Your task to perform on an android device: turn off picture-in-picture Image 0: 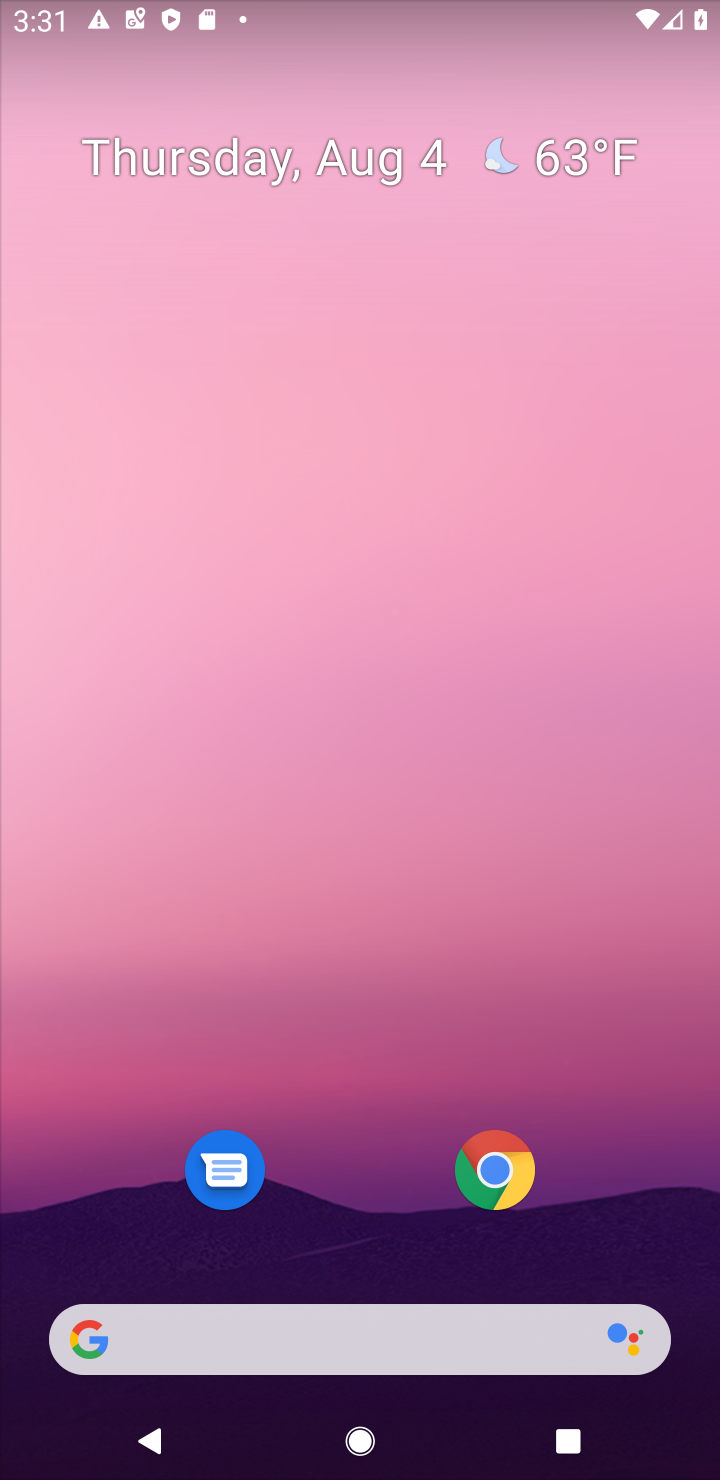
Step 0: drag from (641, 1228) to (561, 419)
Your task to perform on an android device: turn off picture-in-picture Image 1: 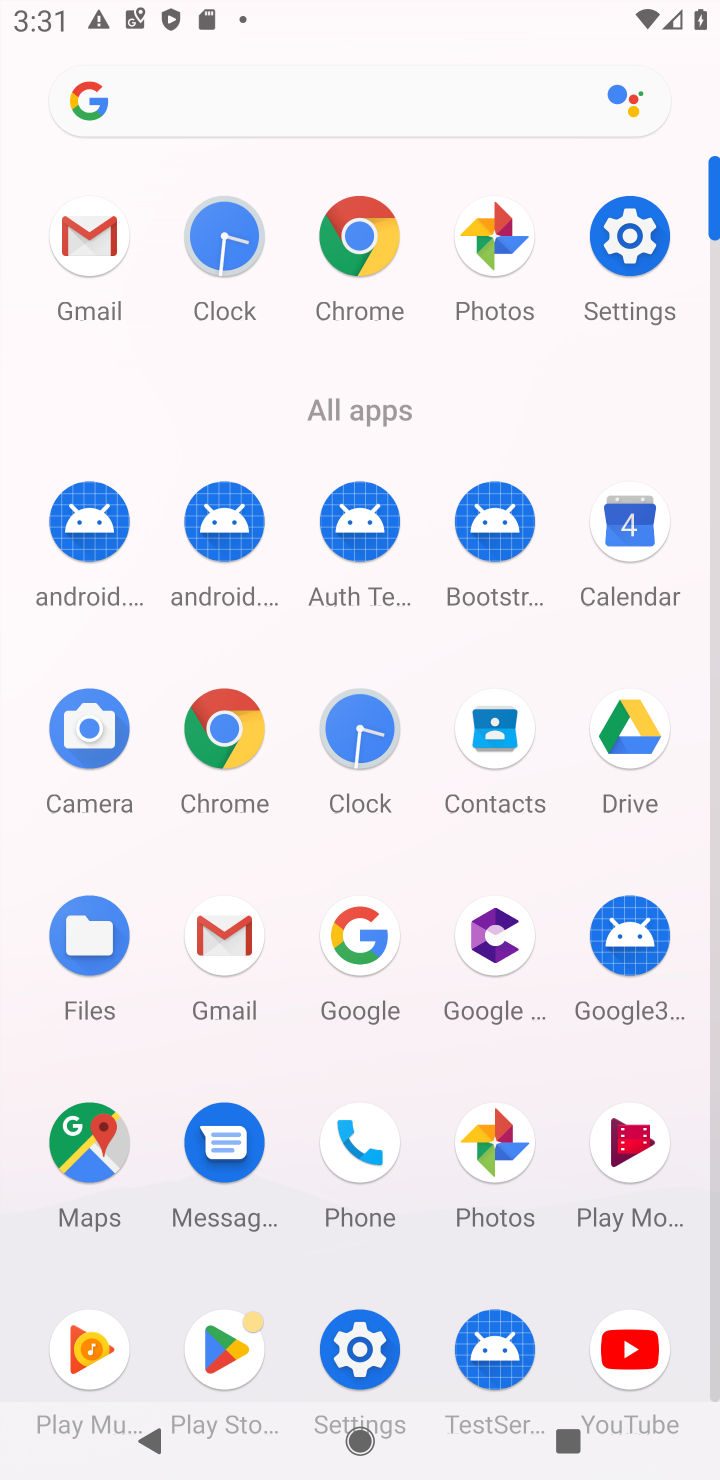
Step 1: click (348, 1358)
Your task to perform on an android device: turn off picture-in-picture Image 2: 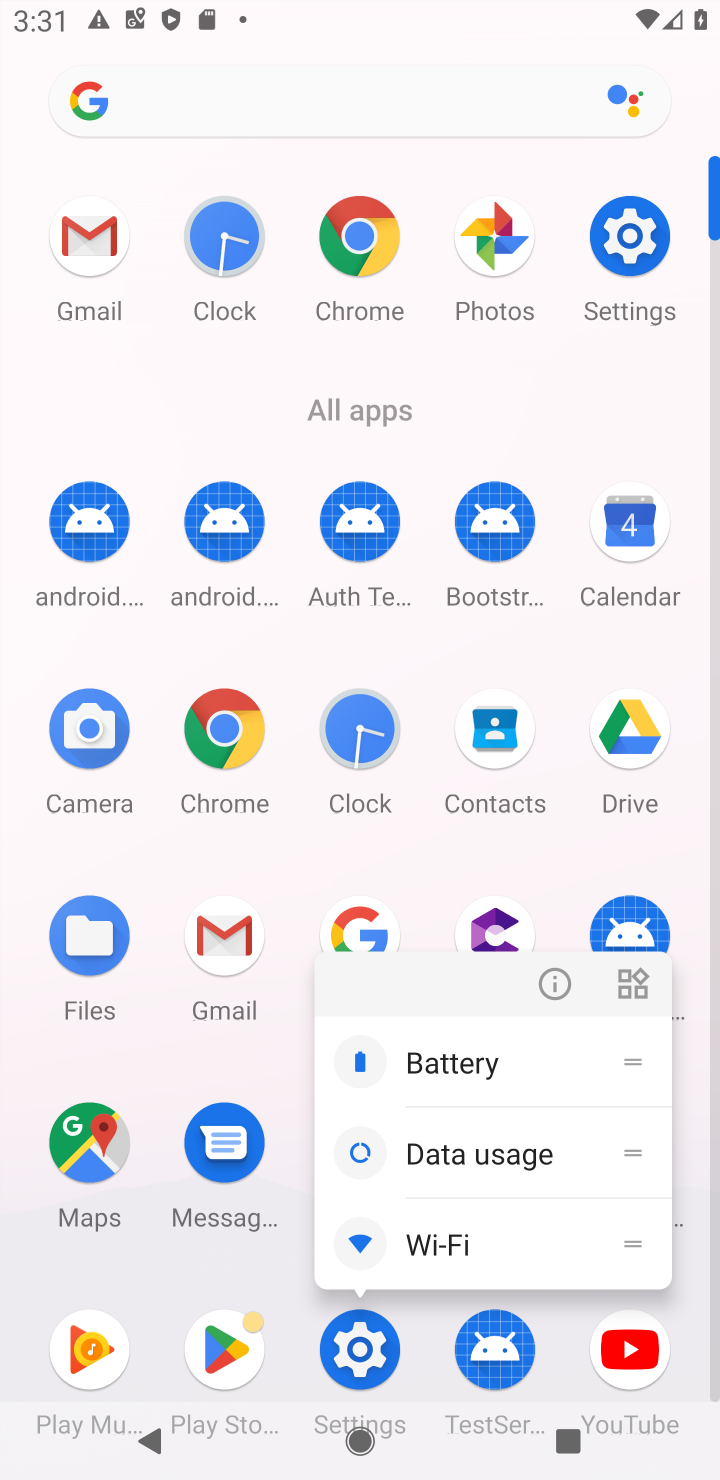
Step 2: click (351, 1350)
Your task to perform on an android device: turn off picture-in-picture Image 3: 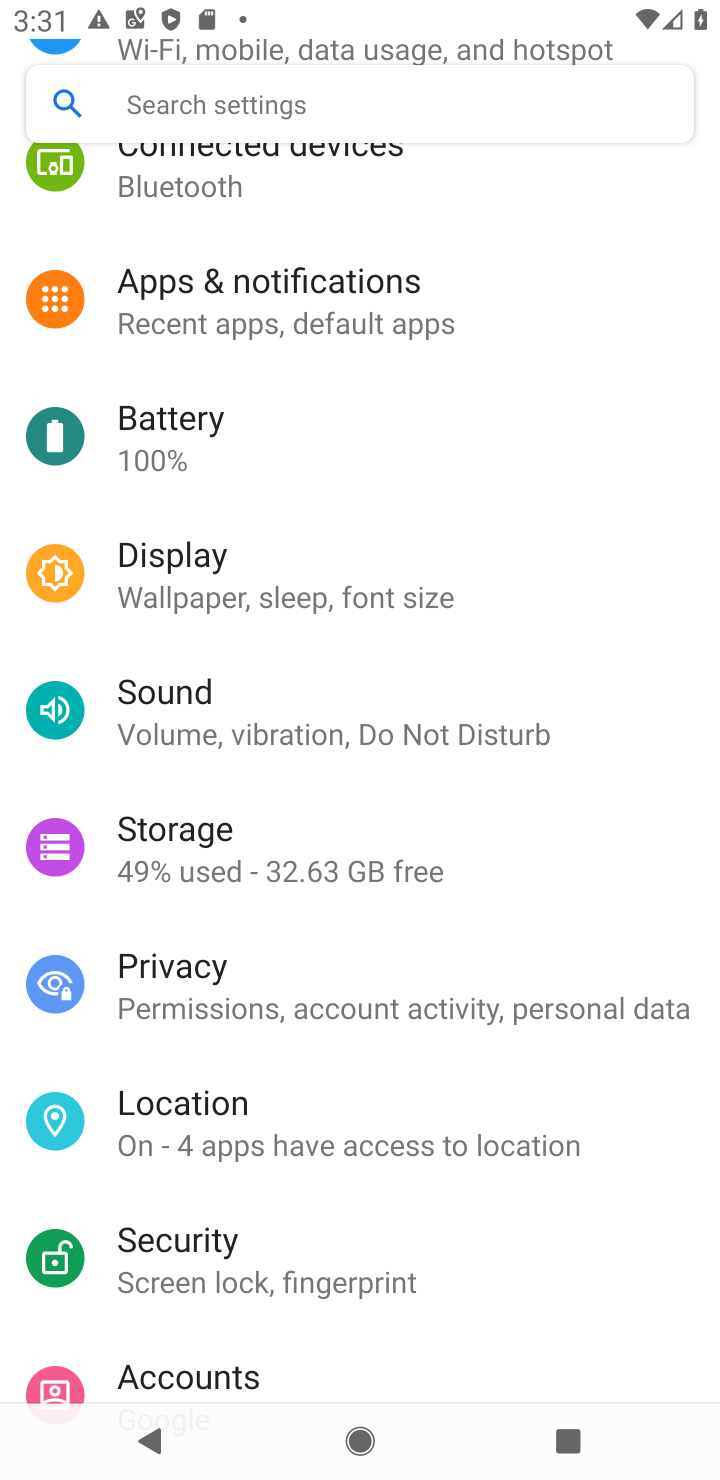
Step 3: drag from (431, 401) to (533, 841)
Your task to perform on an android device: turn off picture-in-picture Image 4: 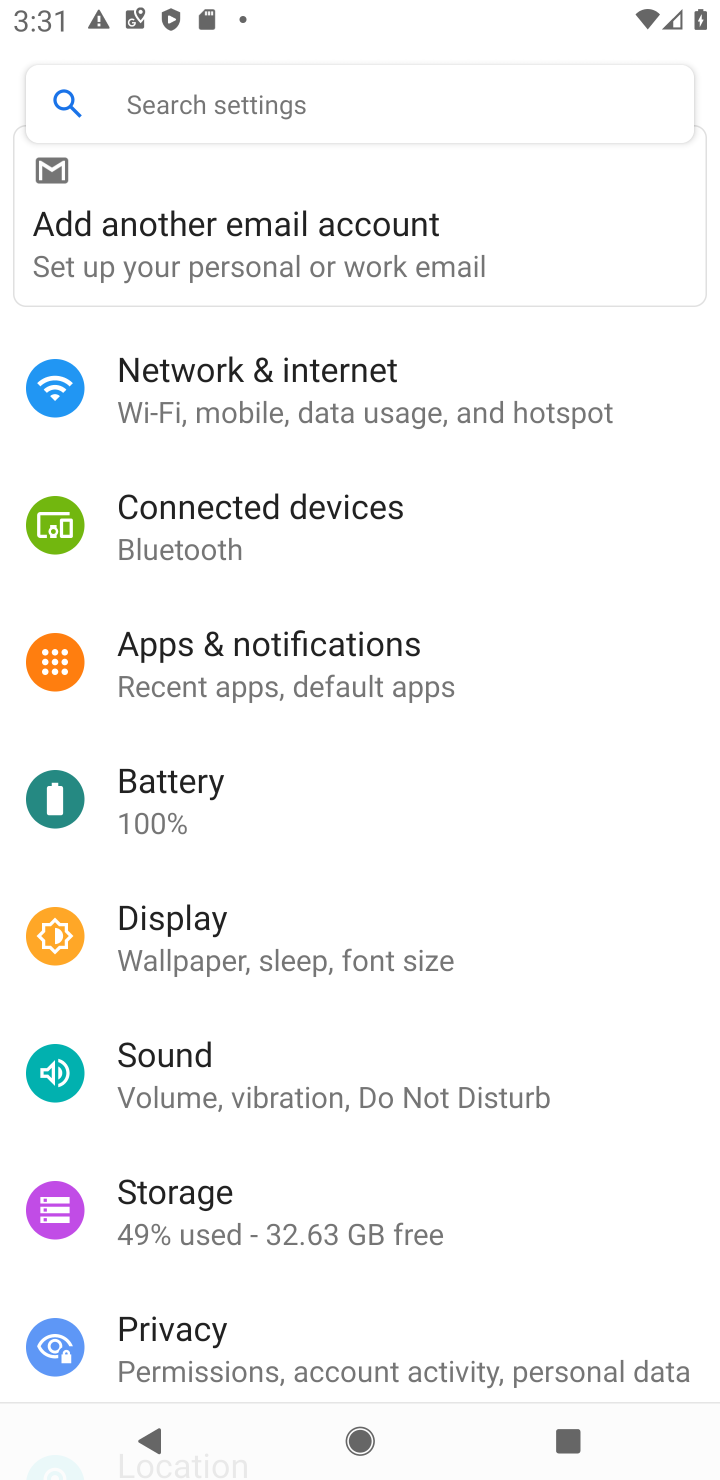
Step 4: click (275, 669)
Your task to perform on an android device: turn off picture-in-picture Image 5: 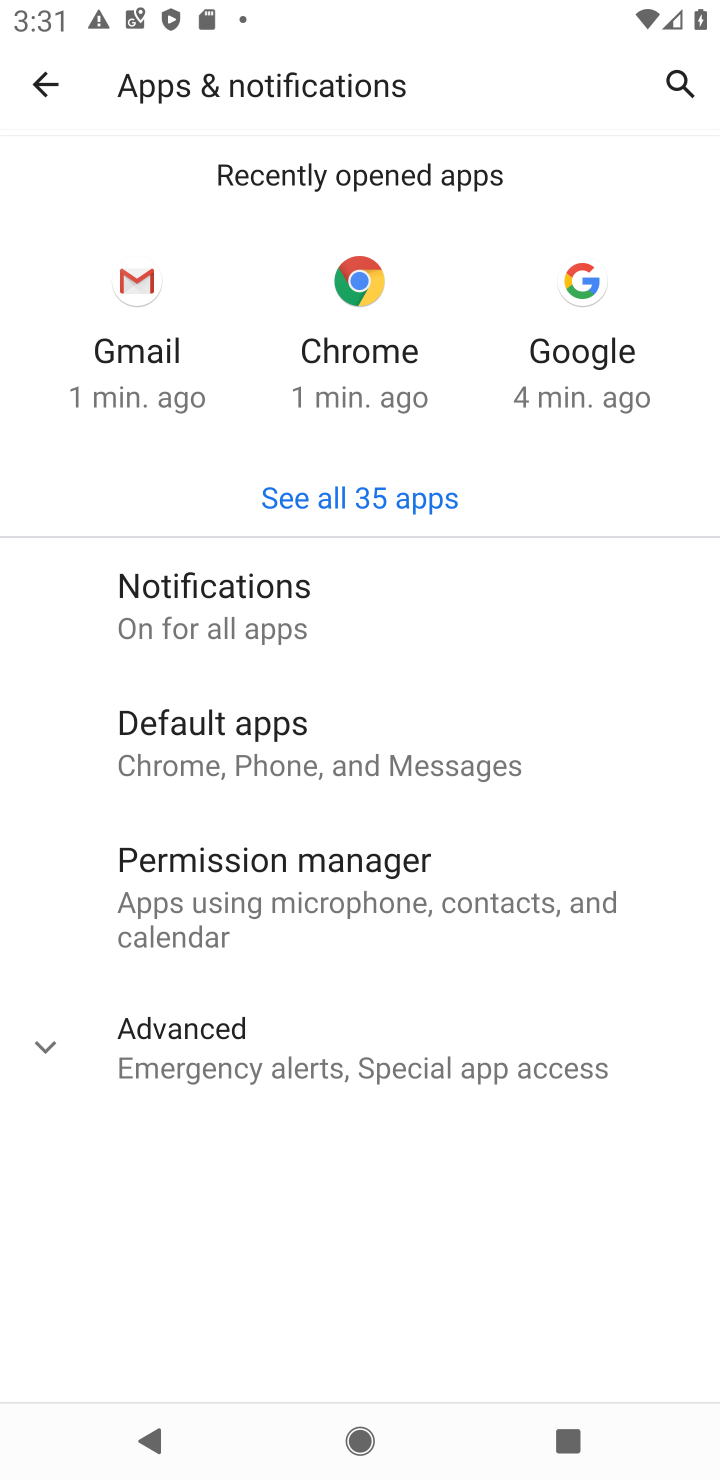
Step 5: click (222, 1037)
Your task to perform on an android device: turn off picture-in-picture Image 6: 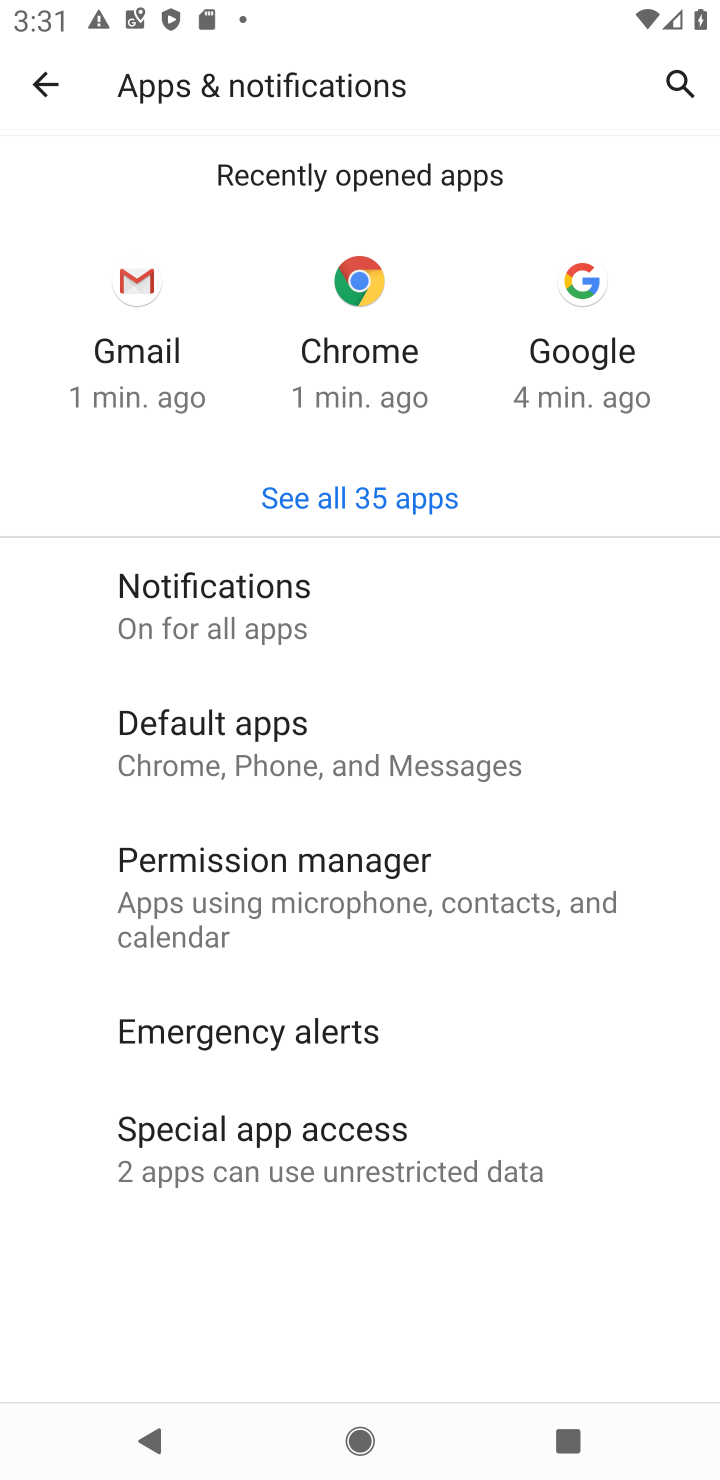
Step 6: click (279, 1175)
Your task to perform on an android device: turn off picture-in-picture Image 7: 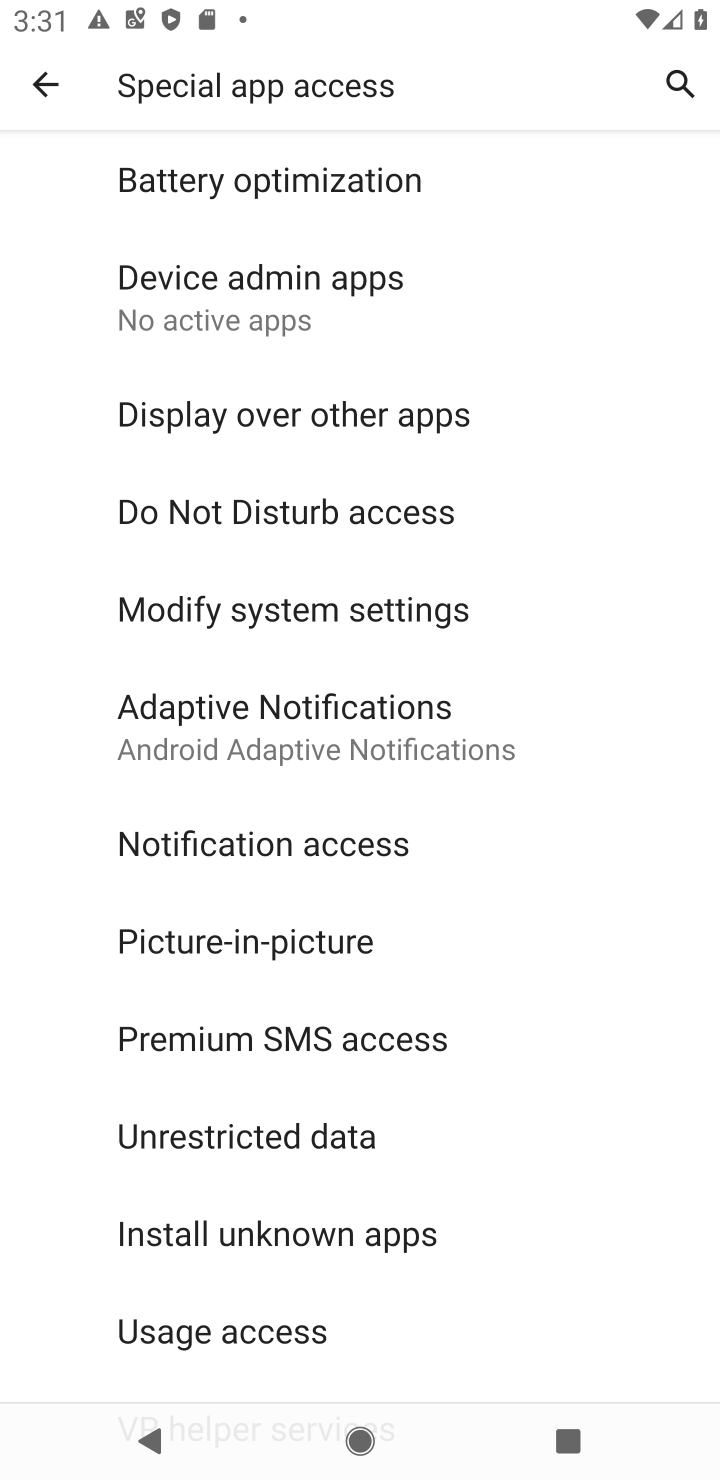
Step 7: click (228, 914)
Your task to perform on an android device: turn off picture-in-picture Image 8: 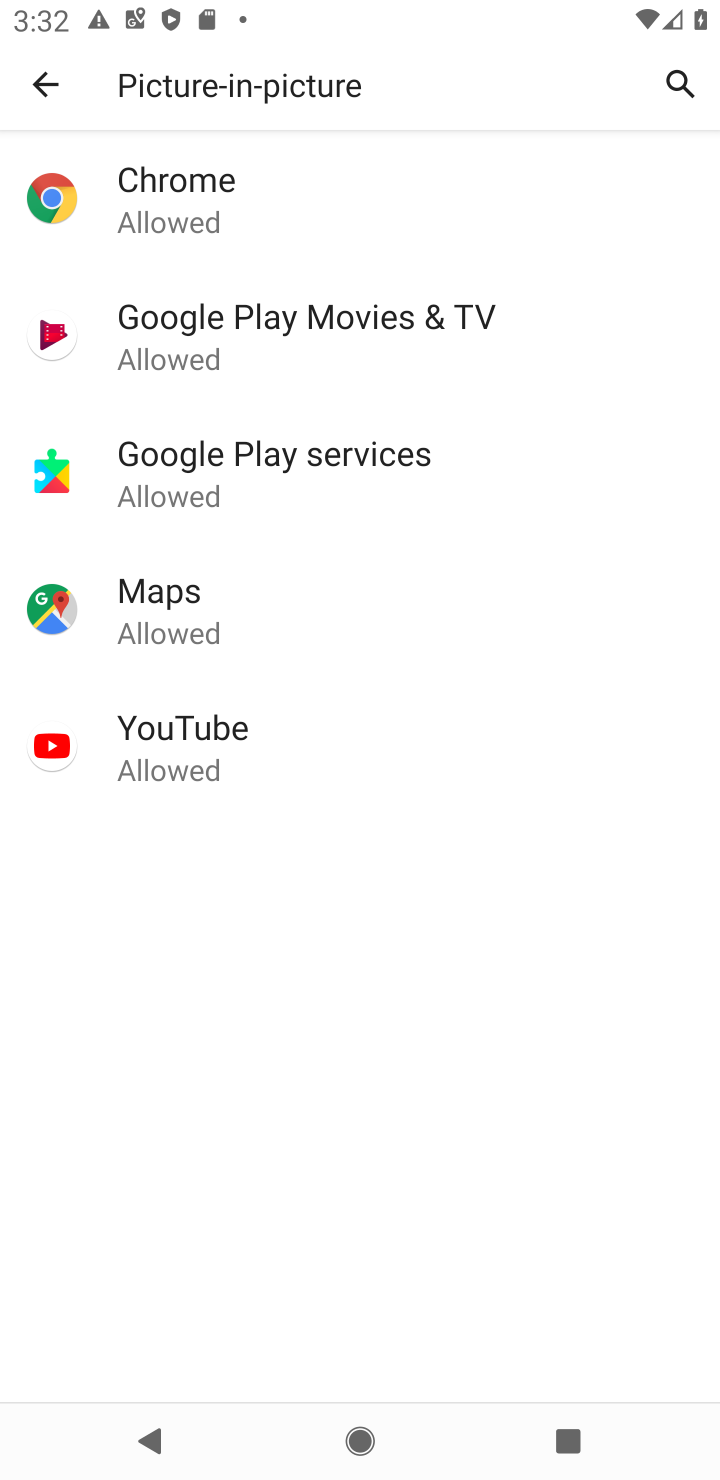
Step 8: click (140, 708)
Your task to perform on an android device: turn off picture-in-picture Image 9: 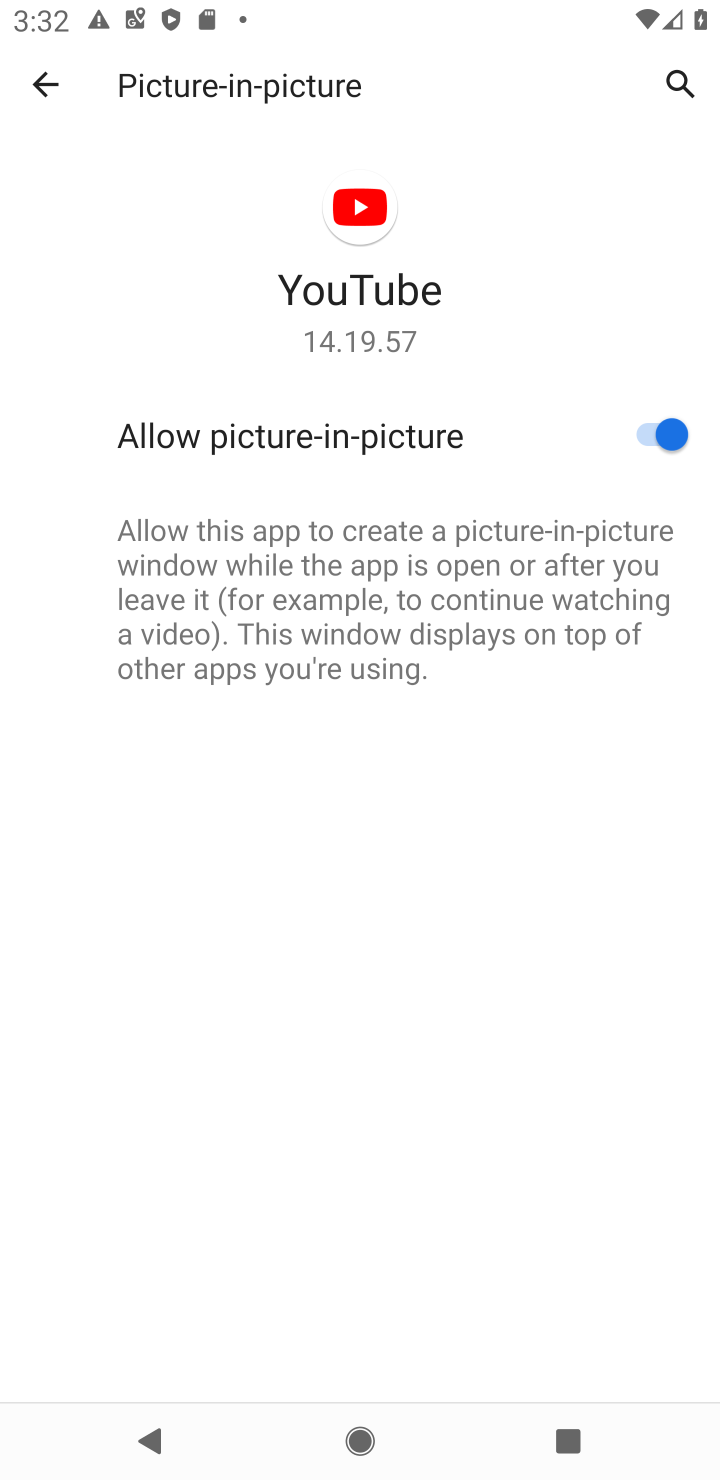
Step 9: click (637, 443)
Your task to perform on an android device: turn off picture-in-picture Image 10: 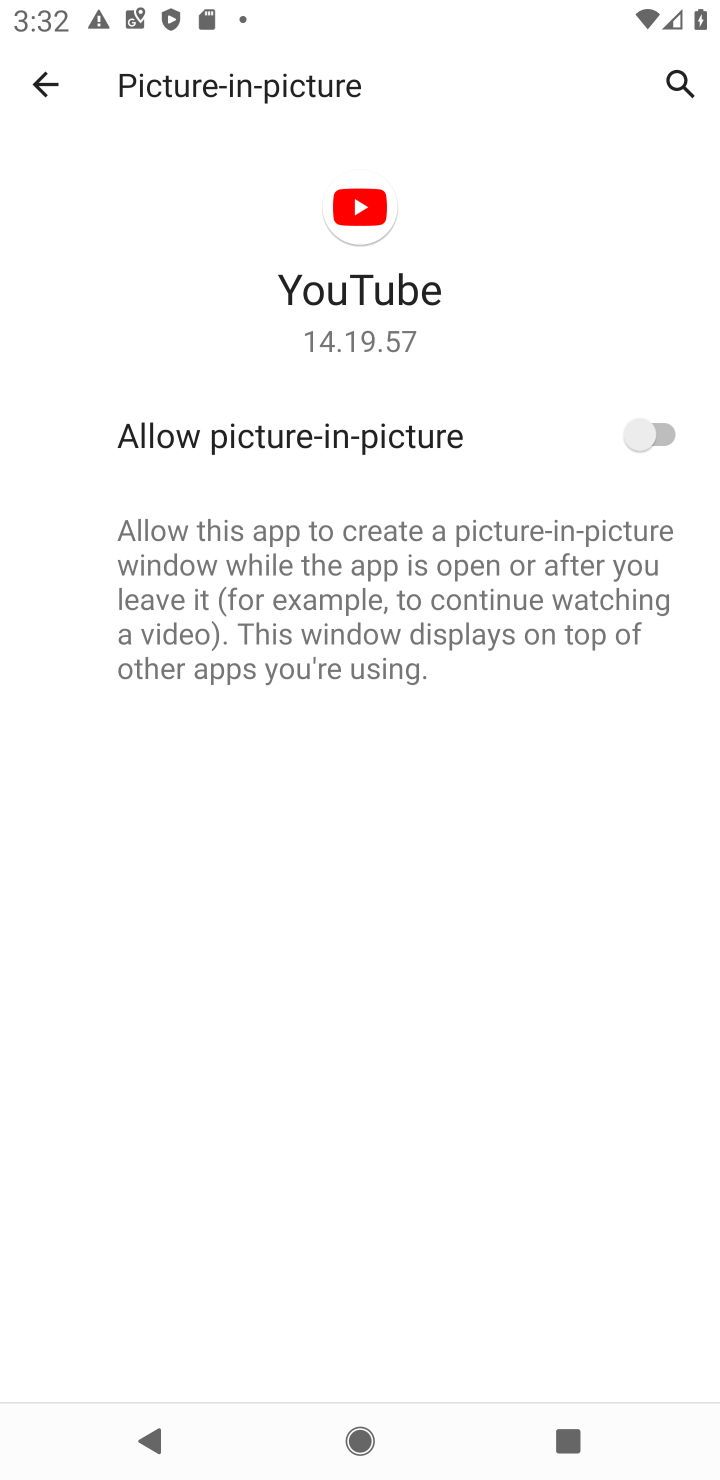
Step 10: task complete